Your task to perform on an android device: Clear the shopping cart on ebay. Search for "logitech g pro" on ebay, select the first entry, and add it to the cart. Image 0: 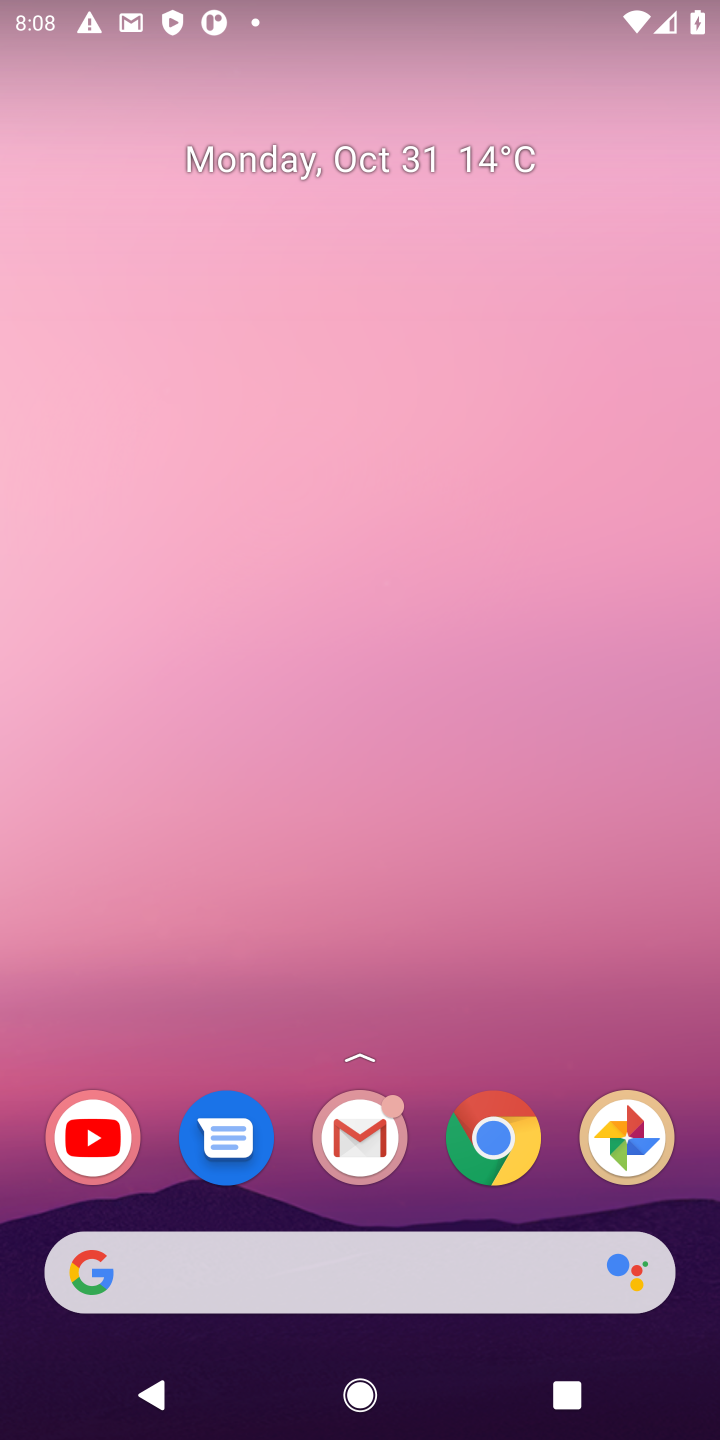
Step 0: click (456, 1192)
Your task to perform on an android device: Clear the shopping cart on ebay. Search for "logitech g pro" on ebay, select the first entry, and add it to the cart. Image 1: 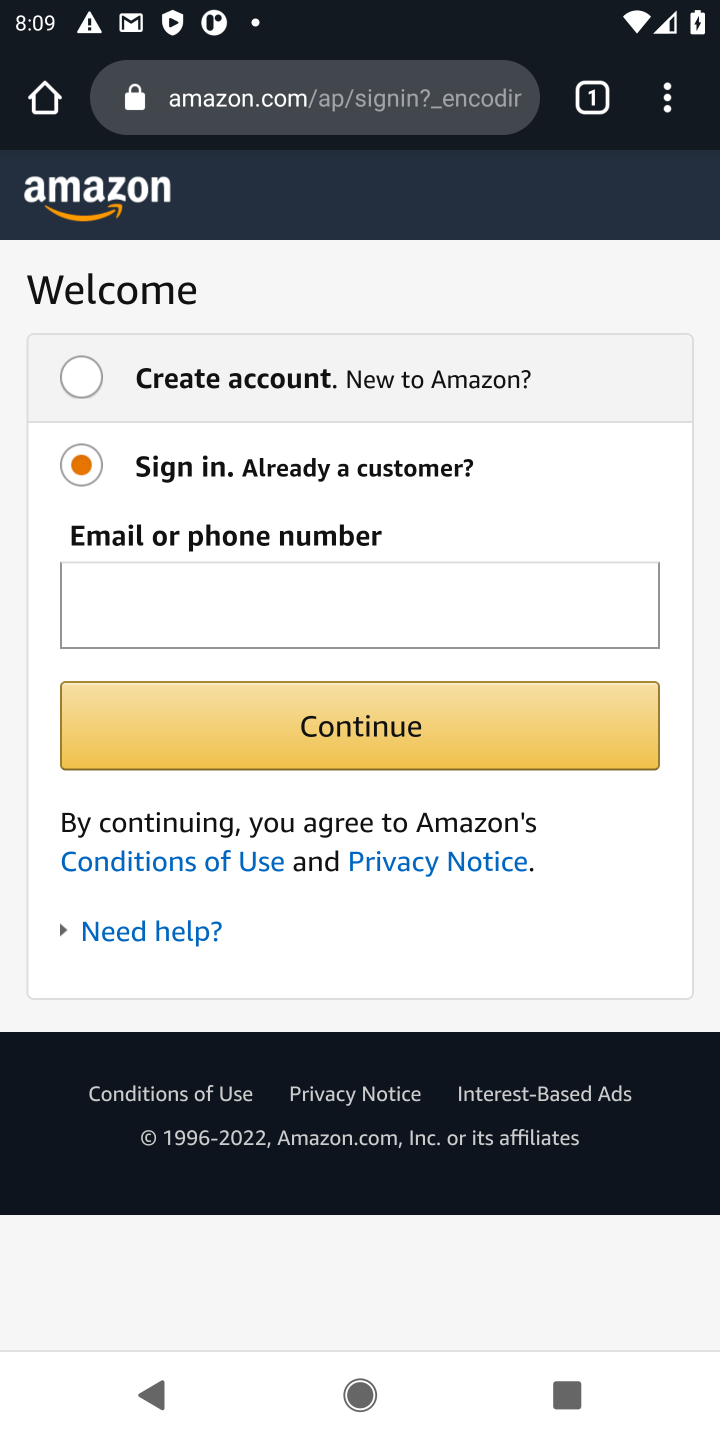
Step 1: click (227, 110)
Your task to perform on an android device: Clear the shopping cart on ebay. Search for "logitech g pro" on ebay, select the first entry, and add it to the cart. Image 2: 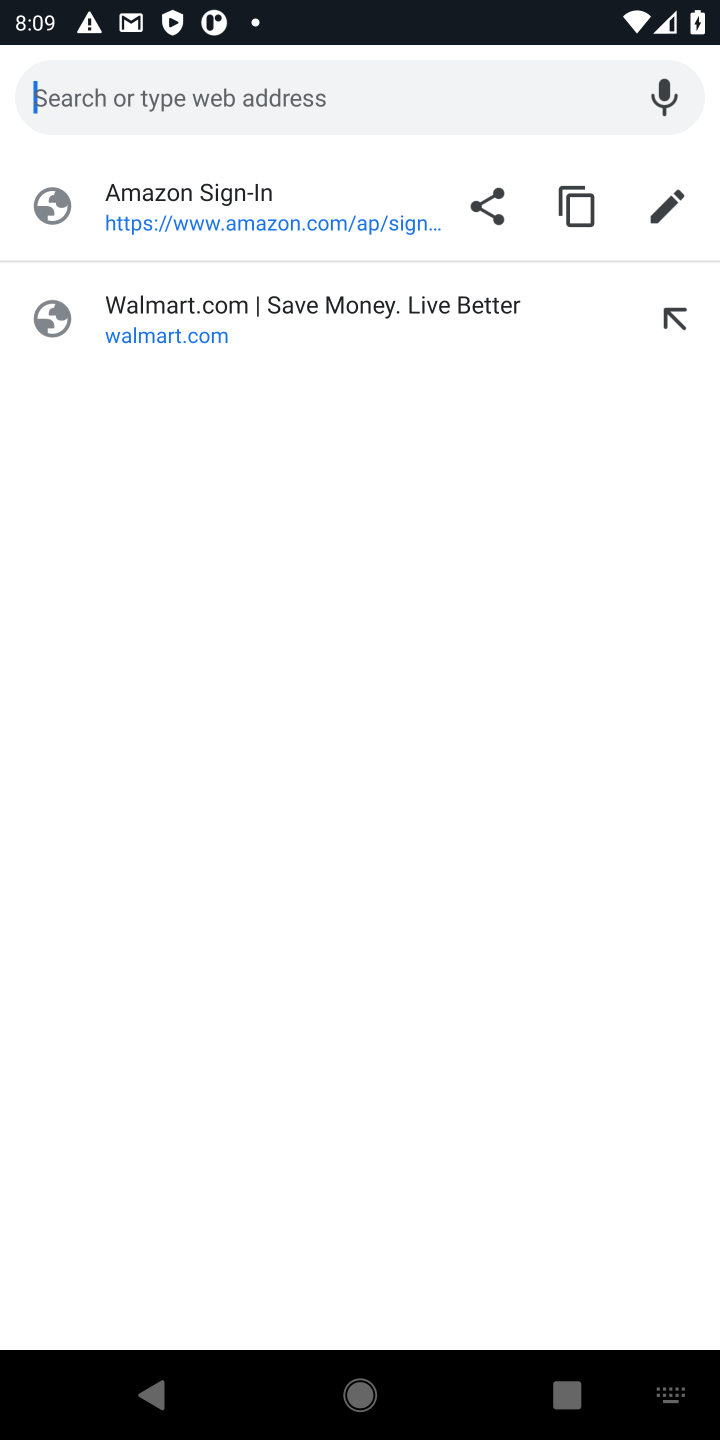
Step 2: type "ebay"
Your task to perform on an android device: Clear the shopping cart on ebay. Search for "logitech g pro" on ebay, select the first entry, and add it to the cart. Image 3: 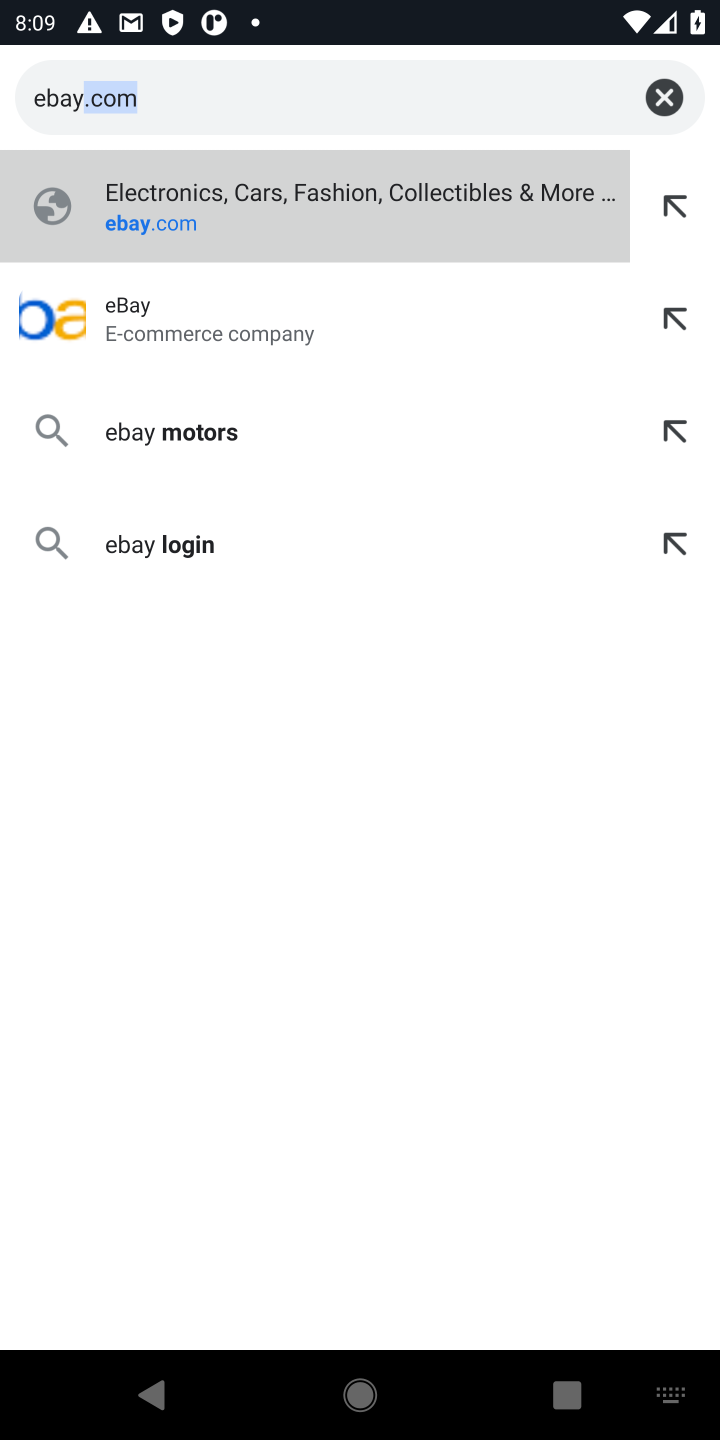
Step 3: click (112, 342)
Your task to perform on an android device: Clear the shopping cart on ebay. Search for "logitech g pro" on ebay, select the first entry, and add it to the cart. Image 4: 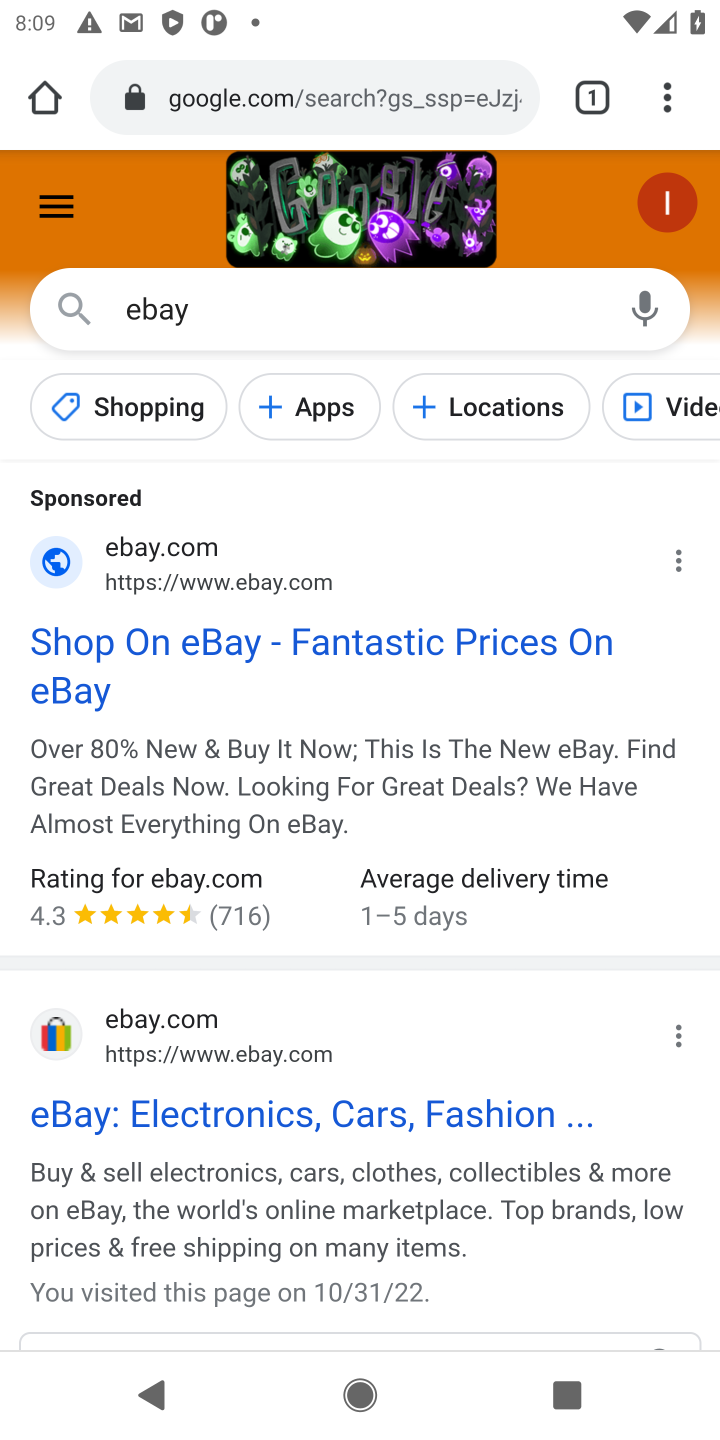
Step 4: click (223, 1116)
Your task to perform on an android device: Clear the shopping cart on ebay. Search for "logitech g pro" on ebay, select the first entry, and add it to the cart. Image 5: 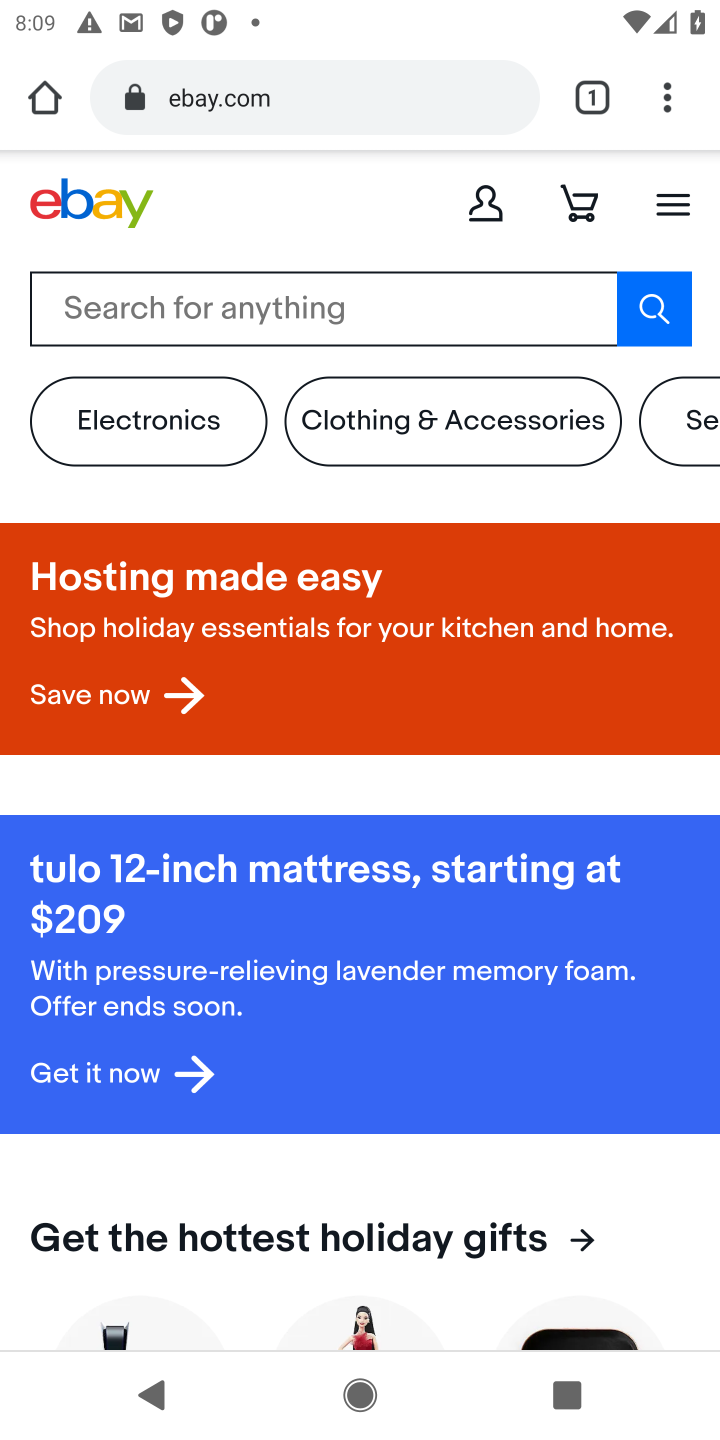
Step 5: click (187, 302)
Your task to perform on an android device: Clear the shopping cart on ebay. Search for "logitech g pro" on ebay, select the first entry, and add it to the cart. Image 6: 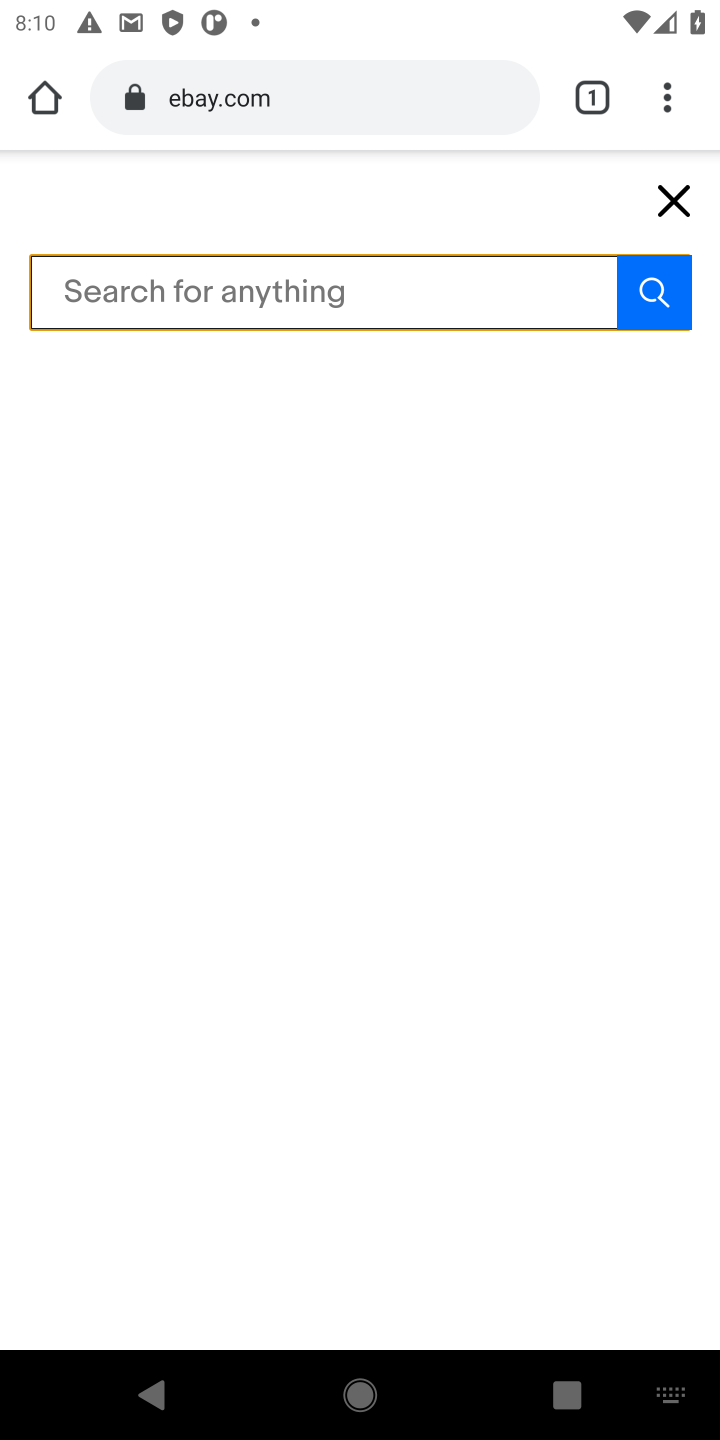
Step 6: type "logitech g pro"
Your task to perform on an android device: Clear the shopping cart on ebay. Search for "logitech g pro" on ebay, select the first entry, and add it to the cart. Image 7: 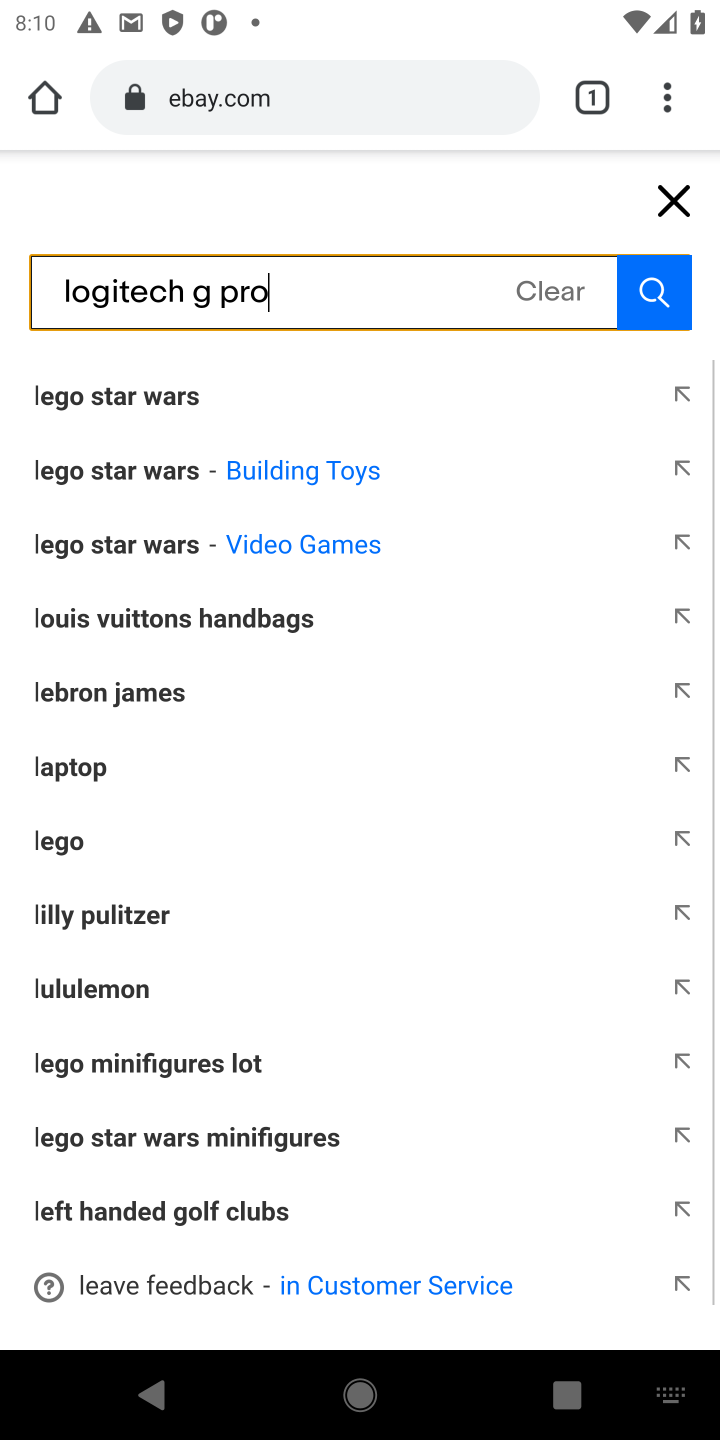
Step 7: type ""
Your task to perform on an android device: Clear the shopping cart on ebay. Search for "logitech g pro" on ebay, select the first entry, and add it to the cart. Image 8: 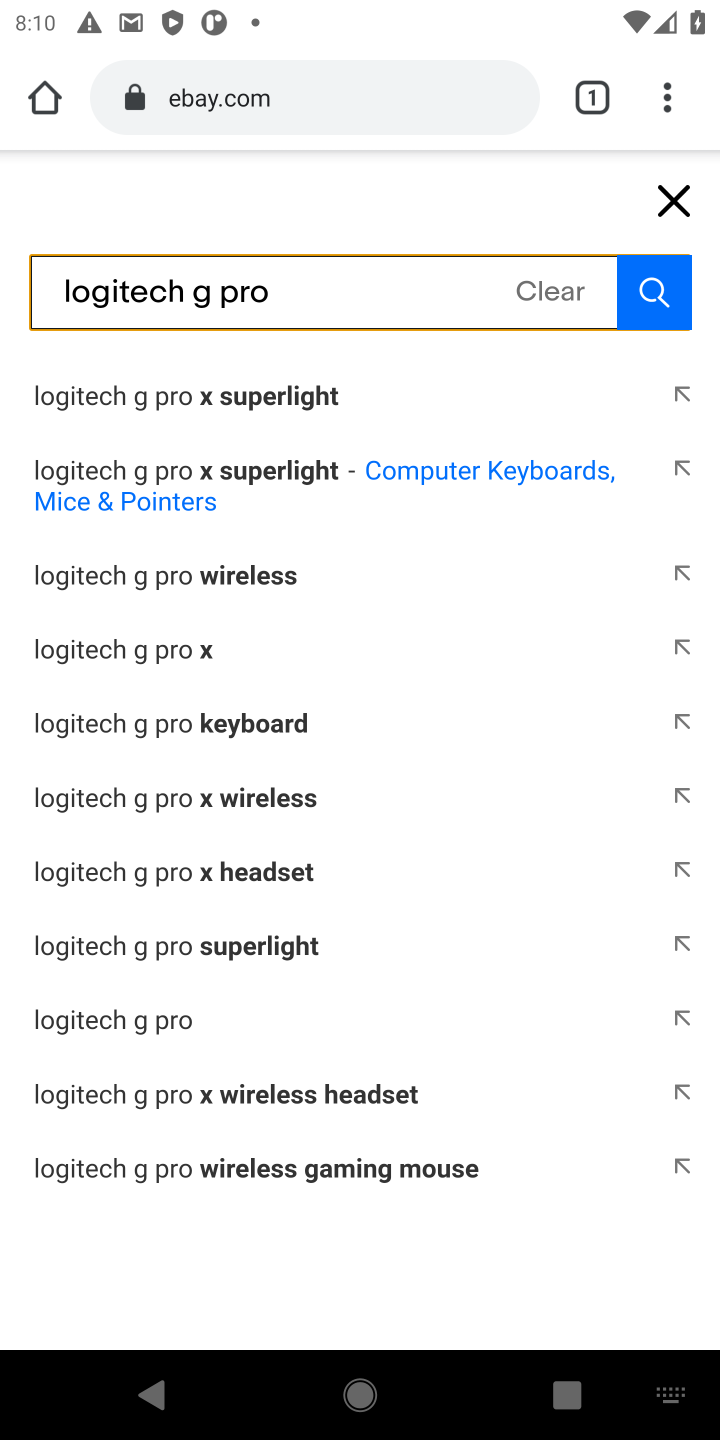
Step 8: click (180, 649)
Your task to perform on an android device: Clear the shopping cart on ebay. Search for "logitech g pro" on ebay, select the first entry, and add it to the cart. Image 9: 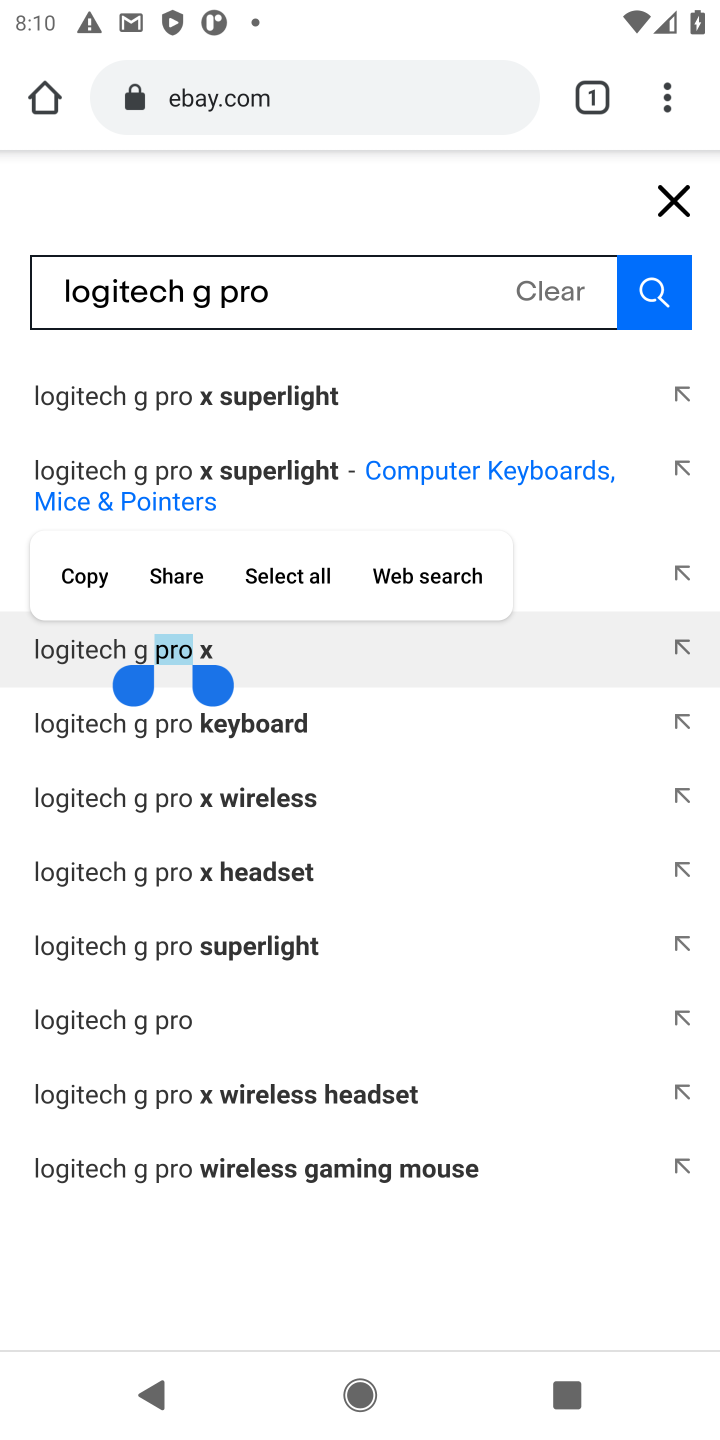
Step 9: click (659, 289)
Your task to perform on an android device: Clear the shopping cart on ebay. Search for "logitech g pro" on ebay, select the first entry, and add it to the cart. Image 10: 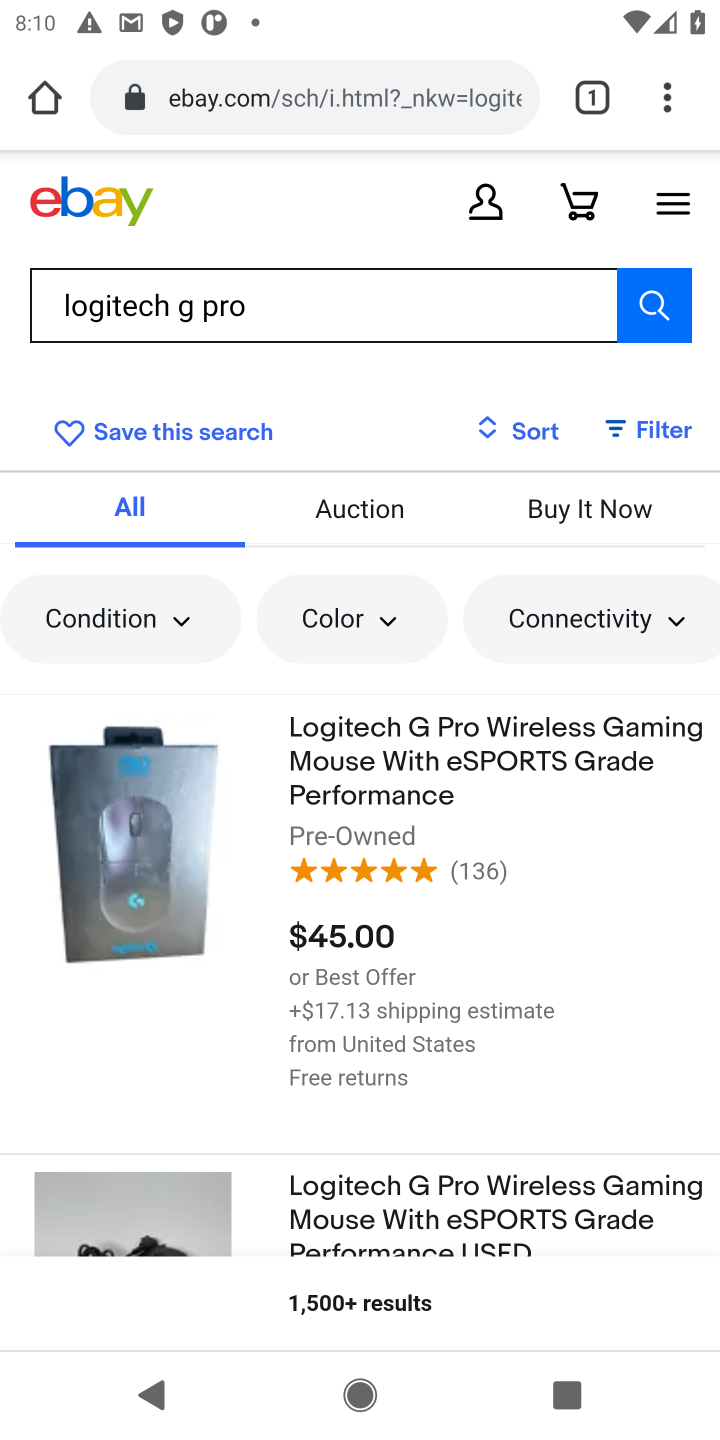
Step 10: drag from (374, 1001) to (352, 694)
Your task to perform on an android device: Clear the shopping cart on ebay. Search for "logitech g pro" on ebay, select the first entry, and add it to the cart. Image 11: 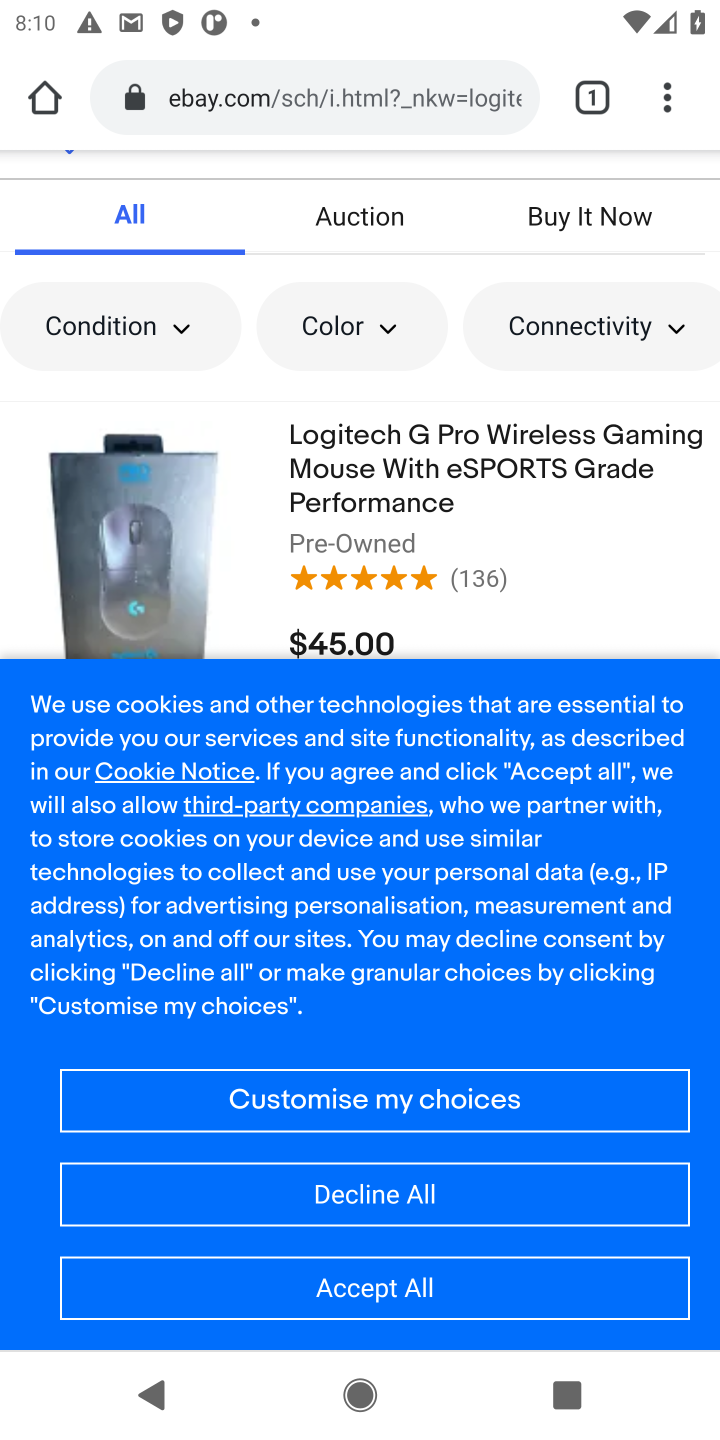
Step 11: click (348, 1291)
Your task to perform on an android device: Clear the shopping cart on ebay. Search for "logitech g pro" on ebay, select the first entry, and add it to the cart. Image 12: 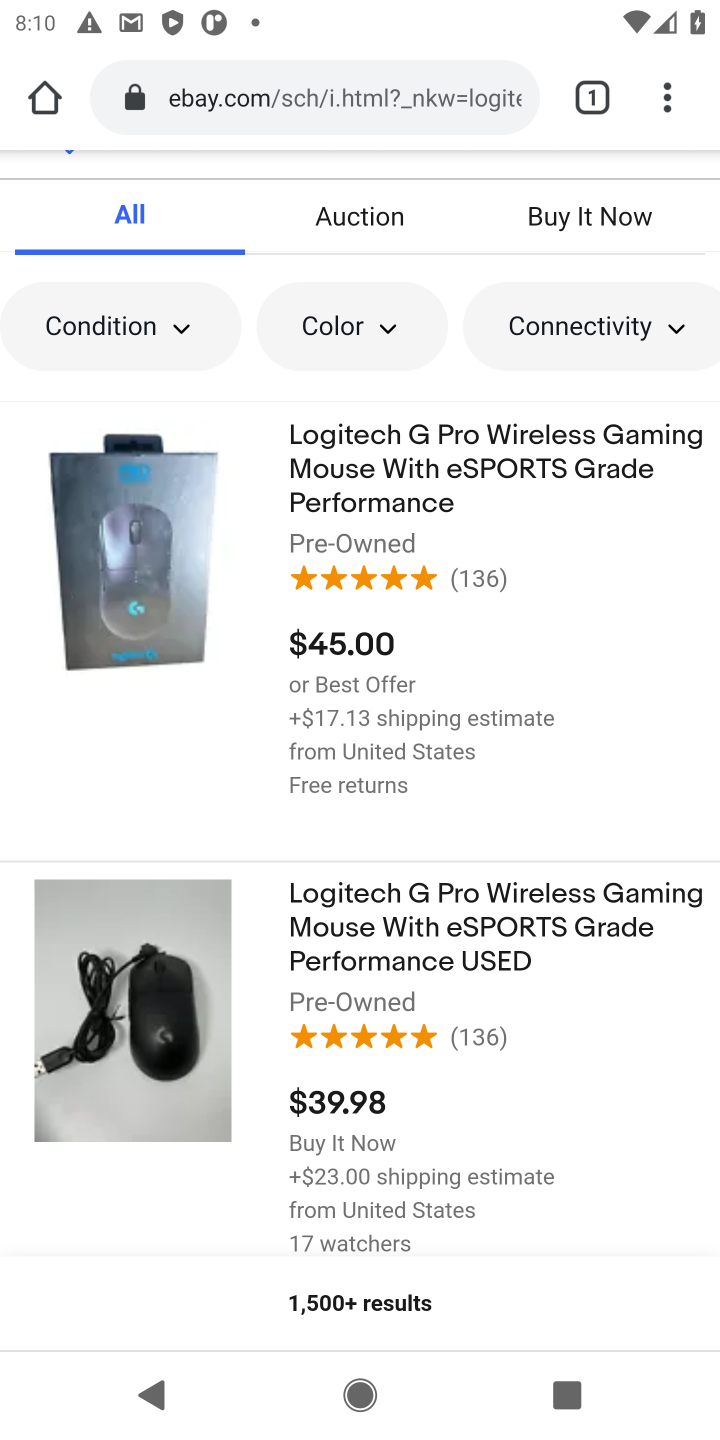
Step 12: click (213, 1016)
Your task to perform on an android device: Clear the shopping cart on ebay. Search for "logitech g pro" on ebay, select the first entry, and add it to the cart. Image 13: 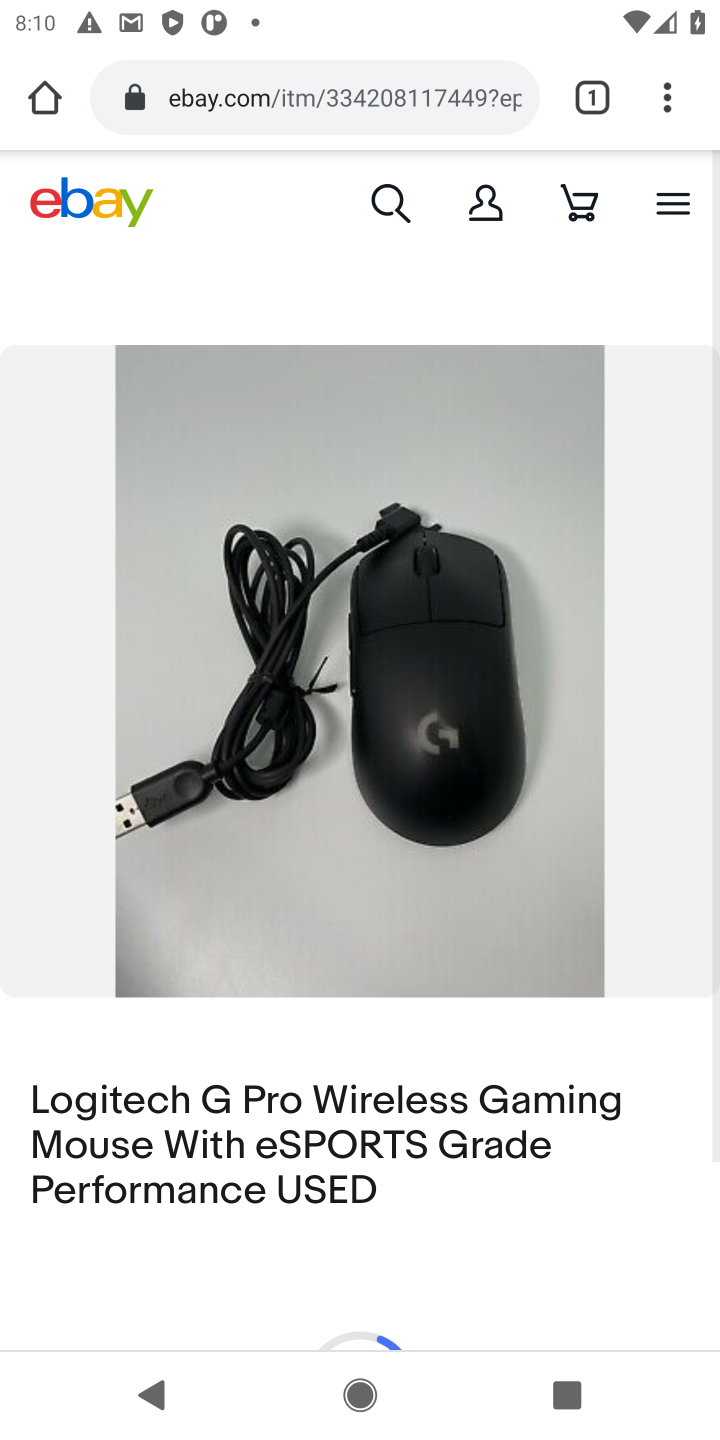
Step 13: drag from (255, 1234) to (342, 1068)
Your task to perform on an android device: Clear the shopping cart on ebay. Search for "logitech g pro" on ebay, select the first entry, and add it to the cart. Image 14: 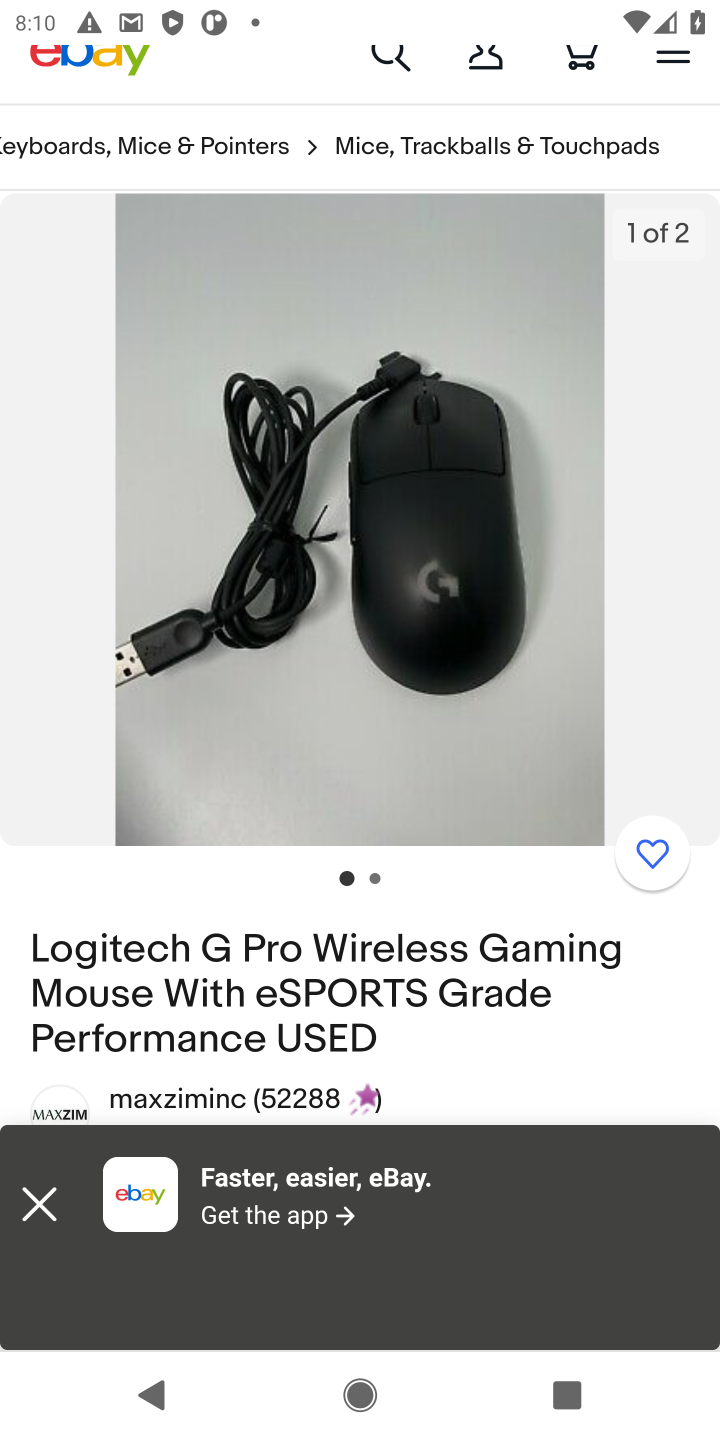
Step 14: click (54, 1206)
Your task to perform on an android device: Clear the shopping cart on ebay. Search for "logitech g pro" on ebay, select the first entry, and add it to the cart. Image 15: 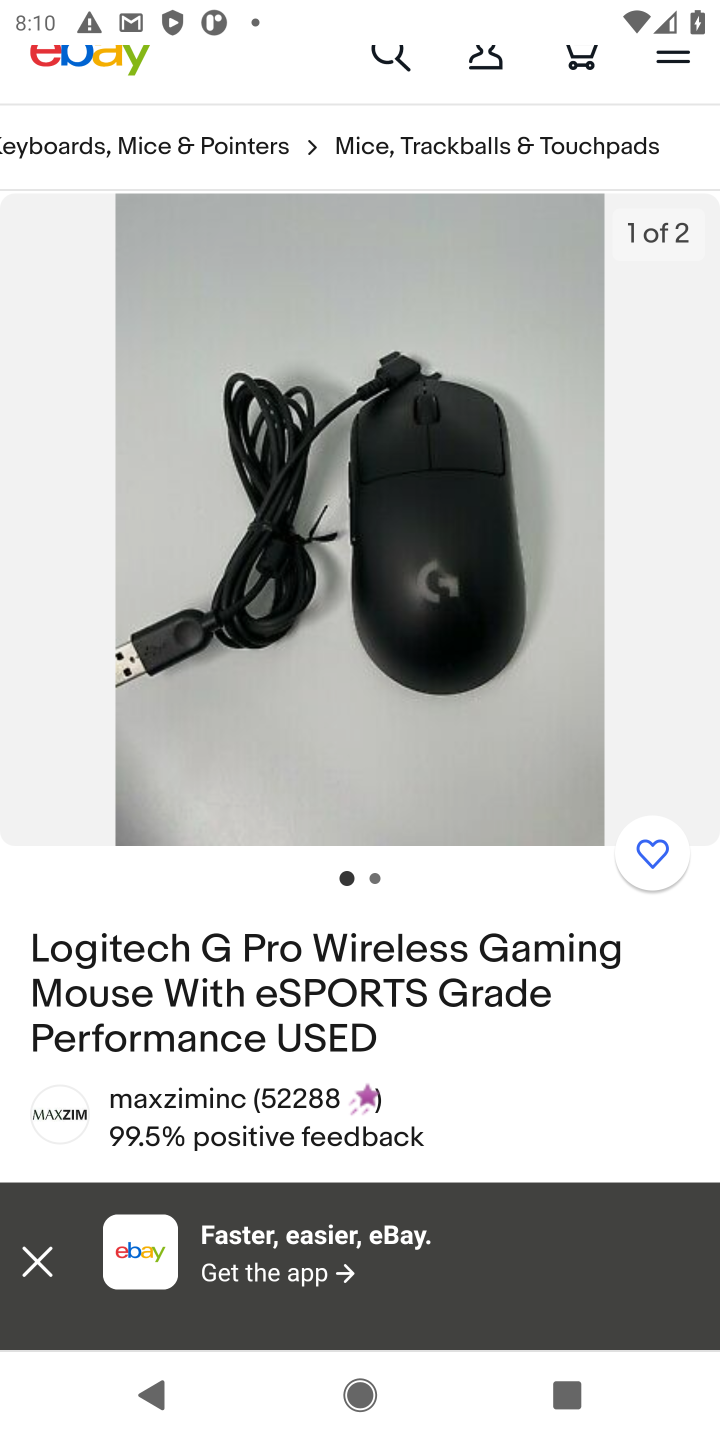
Step 15: drag from (319, 873) to (467, 328)
Your task to perform on an android device: Clear the shopping cart on ebay. Search for "logitech g pro" on ebay, select the first entry, and add it to the cart. Image 16: 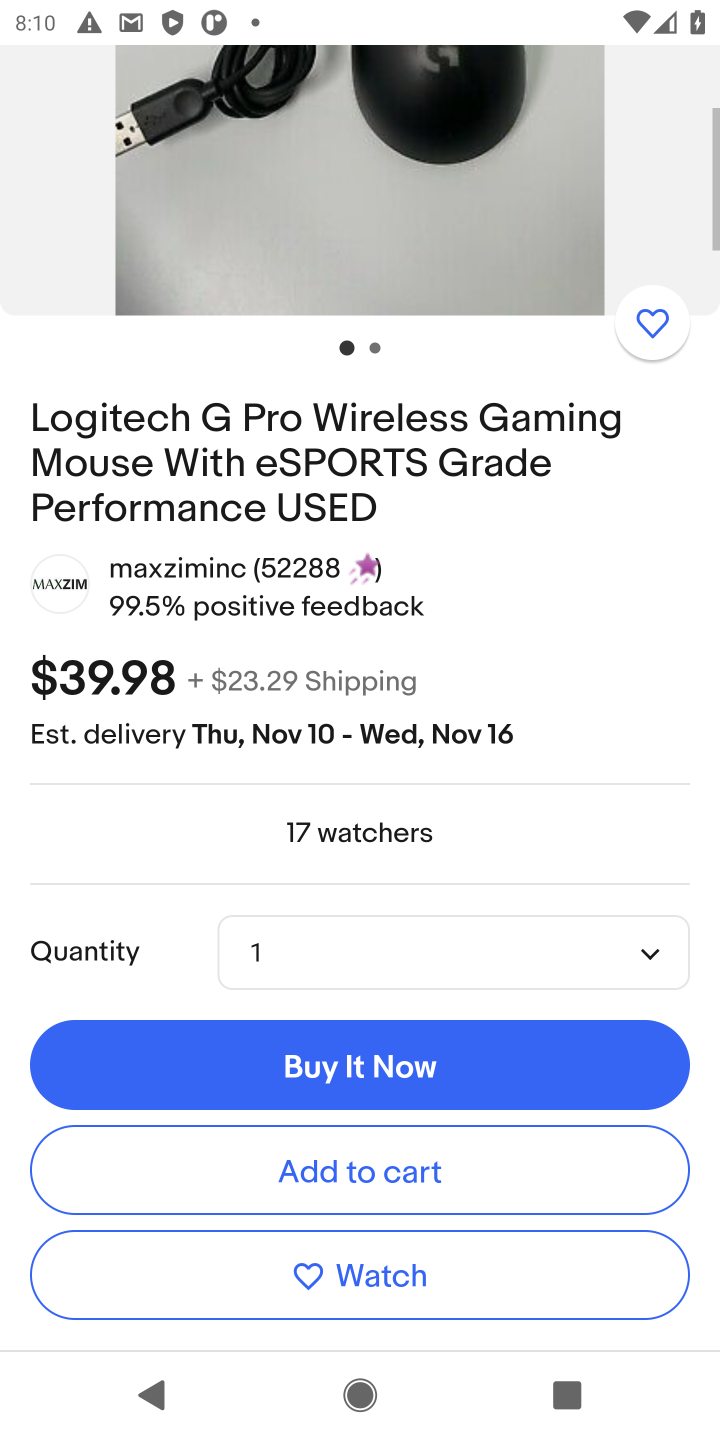
Step 16: drag from (324, 1211) to (443, 661)
Your task to perform on an android device: Clear the shopping cart on ebay. Search for "logitech g pro" on ebay, select the first entry, and add it to the cart. Image 17: 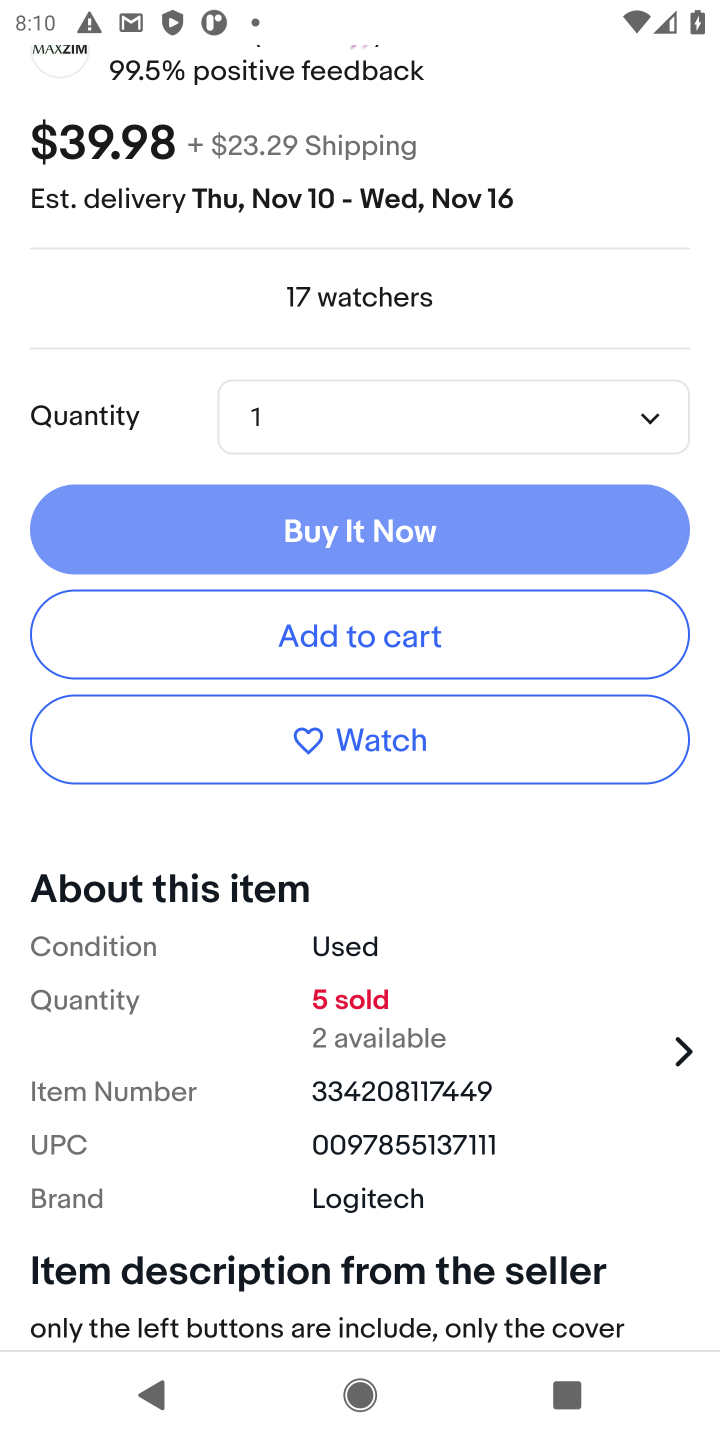
Step 17: click (375, 630)
Your task to perform on an android device: Clear the shopping cart on ebay. Search for "logitech g pro" on ebay, select the first entry, and add it to the cart. Image 18: 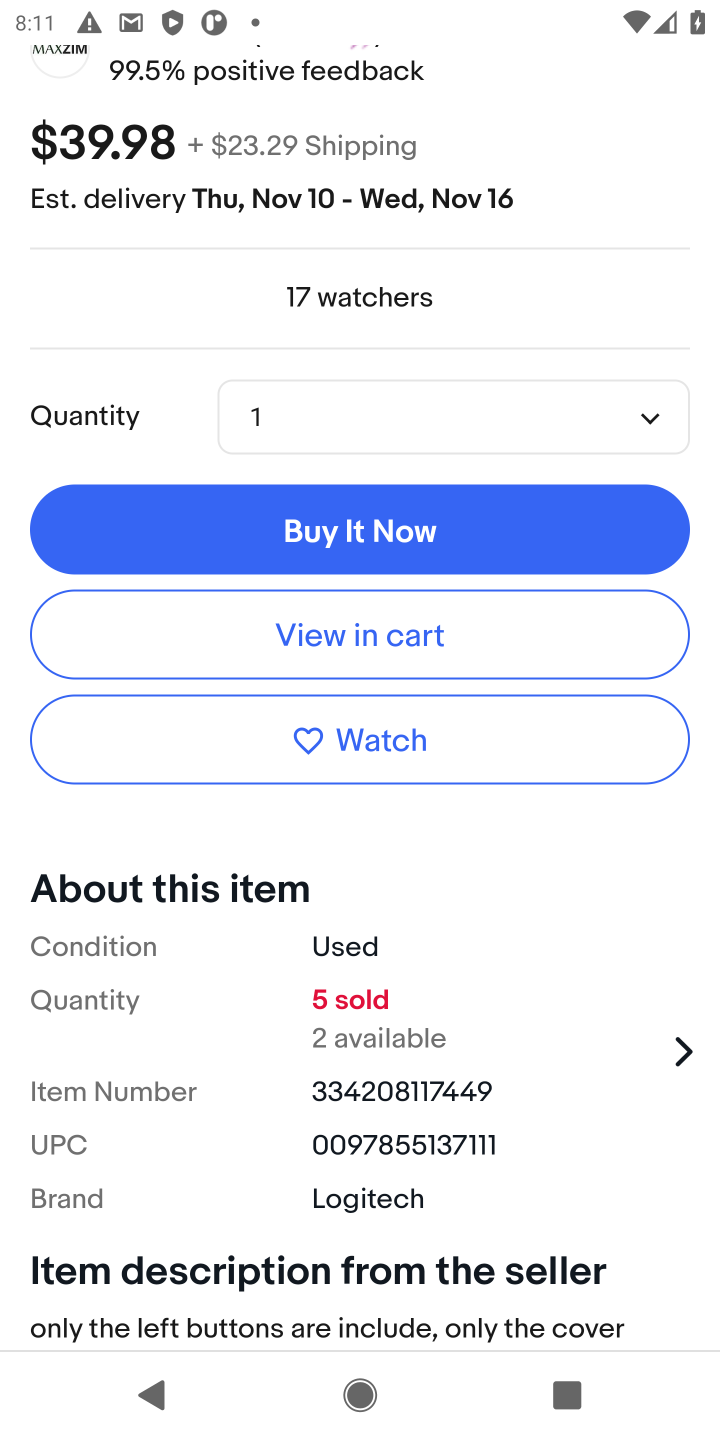
Step 18: click (349, 642)
Your task to perform on an android device: Clear the shopping cart on ebay. Search for "logitech g pro" on ebay, select the first entry, and add it to the cart. Image 19: 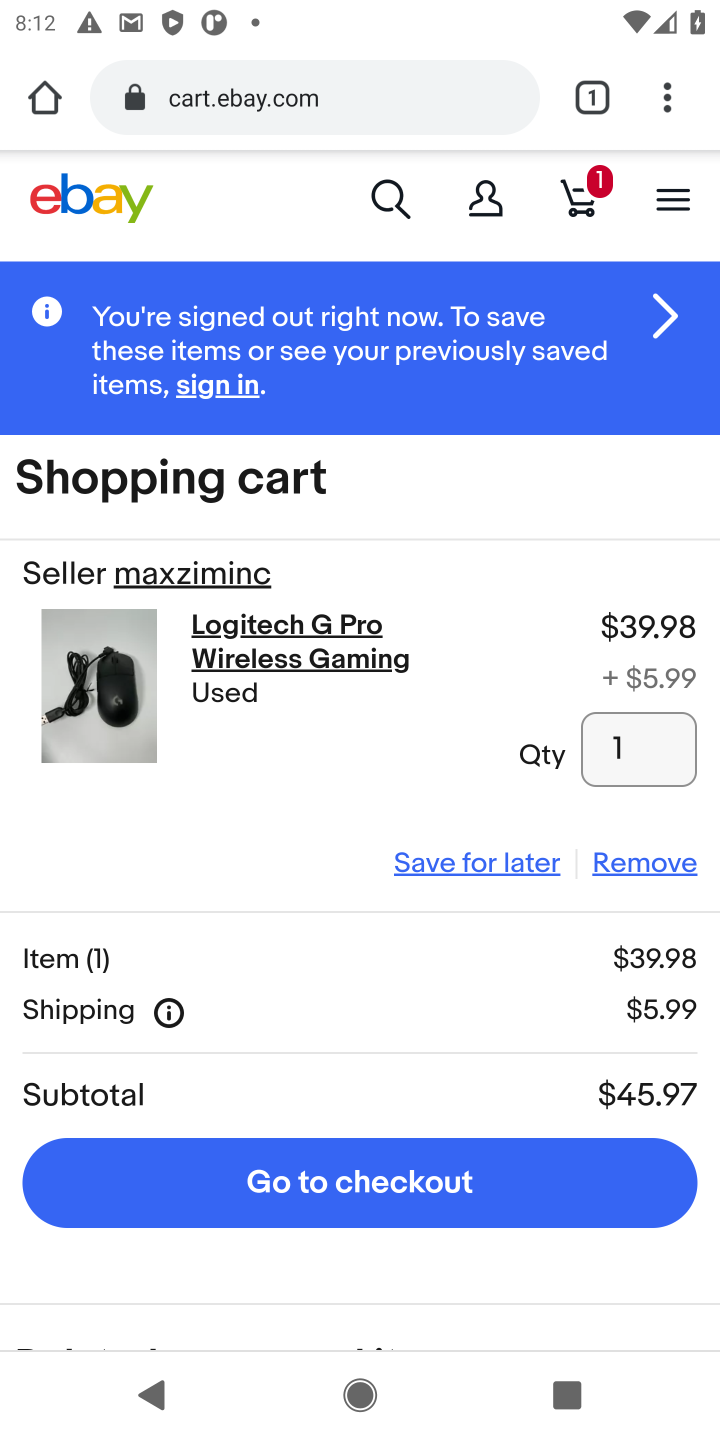
Step 19: task complete